Your task to perform on an android device: open sync settings in chrome Image 0: 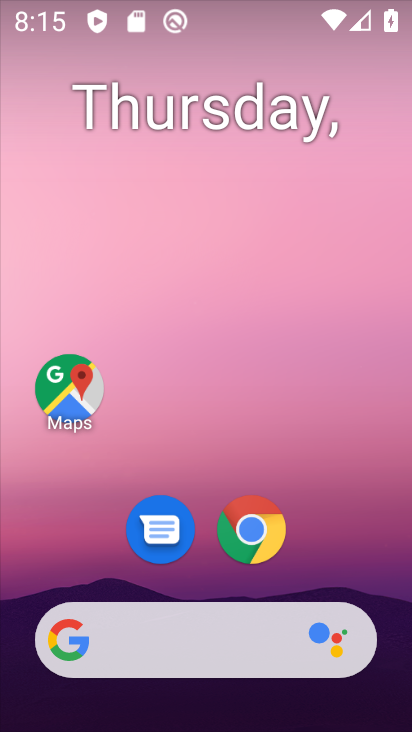
Step 0: press home button
Your task to perform on an android device: open sync settings in chrome Image 1: 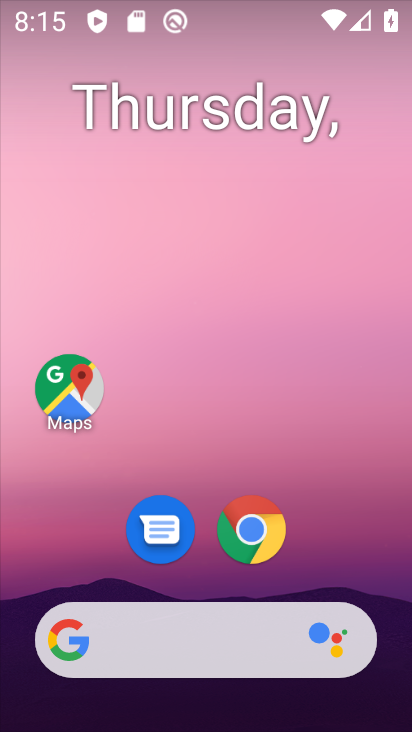
Step 1: click (236, 532)
Your task to perform on an android device: open sync settings in chrome Image 2: 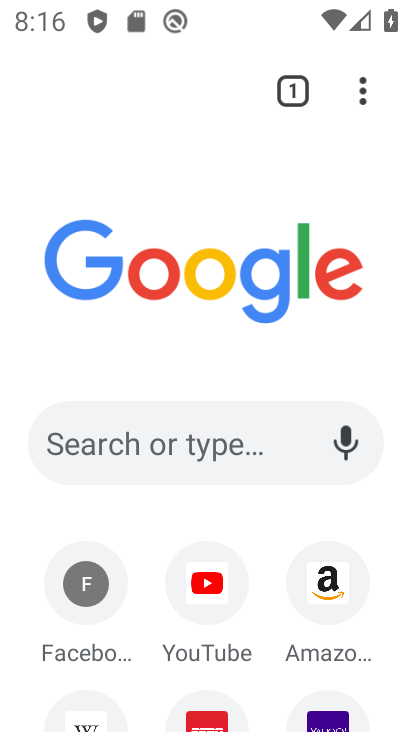
Step 2: drag from (362, 95) to (256, 577)
Your task to perform on an android device: open sync settings in chrome Image 3: 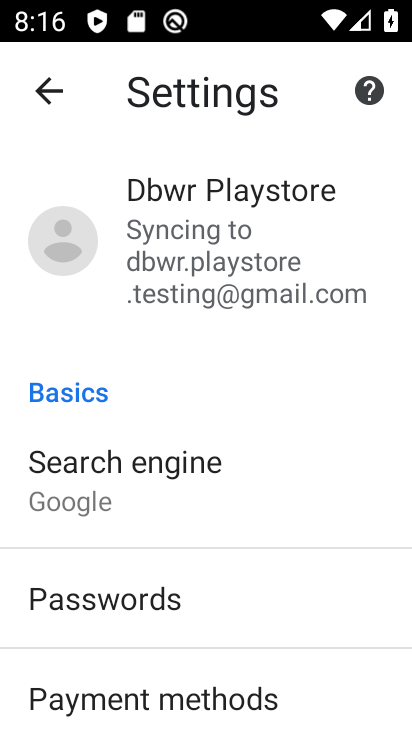
Step 3: drag from (247, 626) to (339, 368)
Your task to perform on an android device: open sync settings in chrome Image 4: 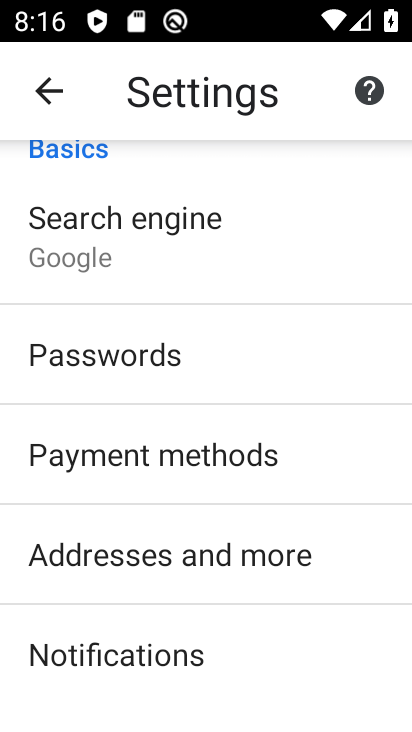
Step 4: drag from (314, 210) to (226, 669)
Your task to perform on an android device: open sync settings in chrome Image 5: 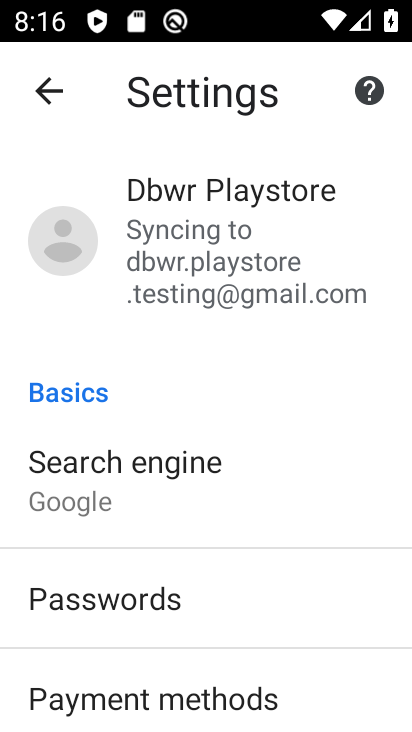
Step 5: click (239, 201)
Your task to perform on an android device: open sync settings in chrome Image 6: 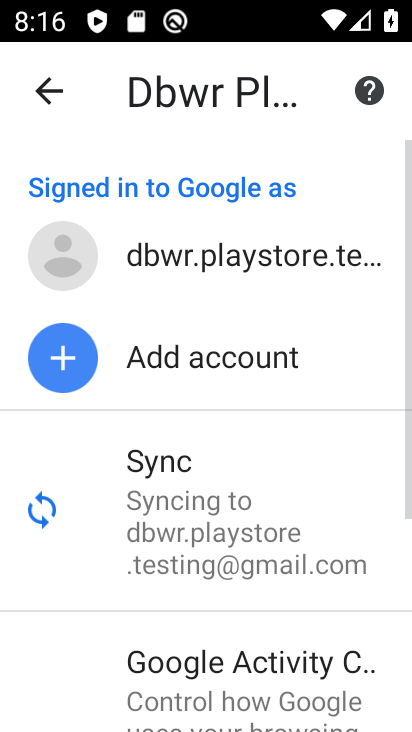
Step 6: click (202, 525)
Your task to perform on an android device: open sync settings in chrome Image 7: 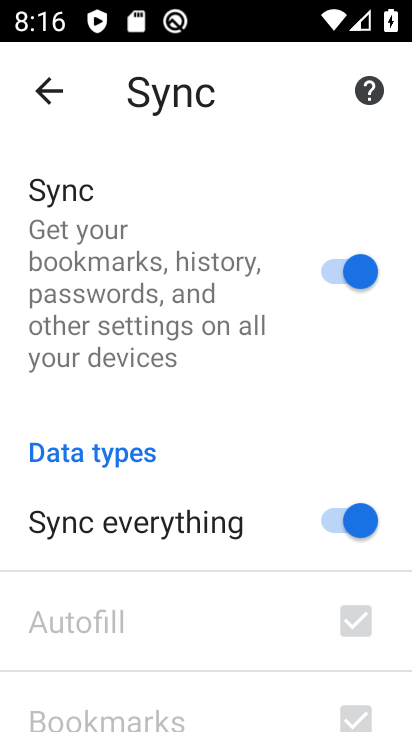
Step 7: task complete